Your task to perform on an android device: Is it going to rain today? Image 0: 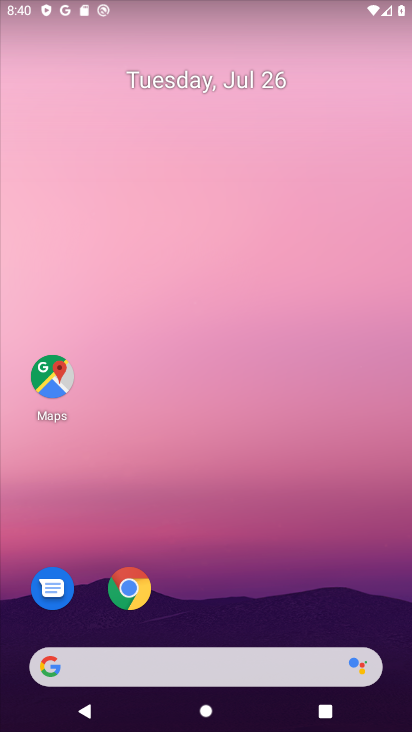
Step 0: press home button
Your task to perform on an android device: Is it going to rain today? Image 1: 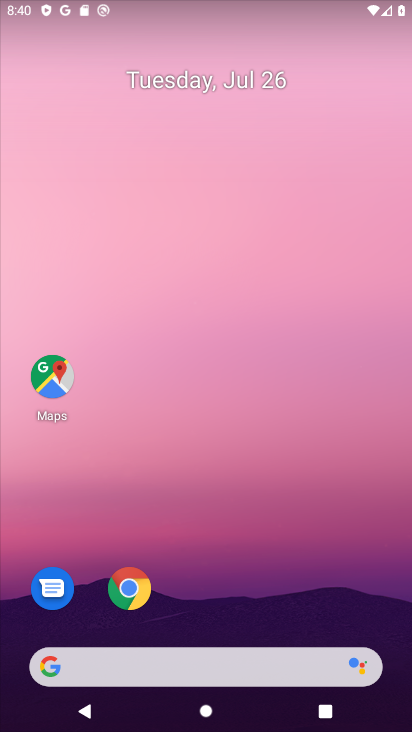
Step 1: drag from (14, 265) to (398, 258)
Your task to perform on an android device: Is it going to rain today? Image 2: 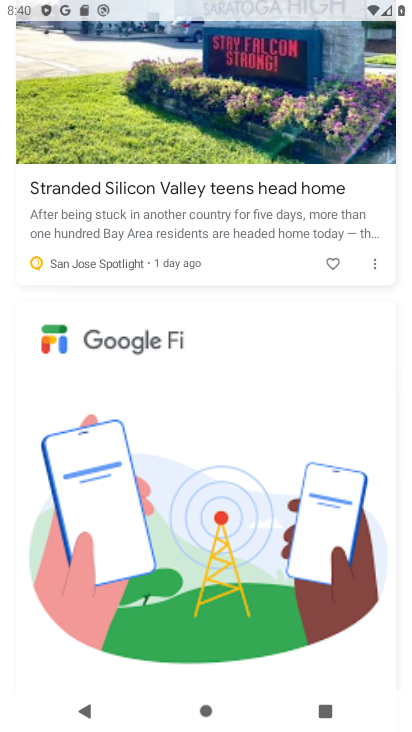
Step 2: drag from (226, 83) to (233, 698)
Your task to perform on an android device: Is it going to rain today? Image 3: 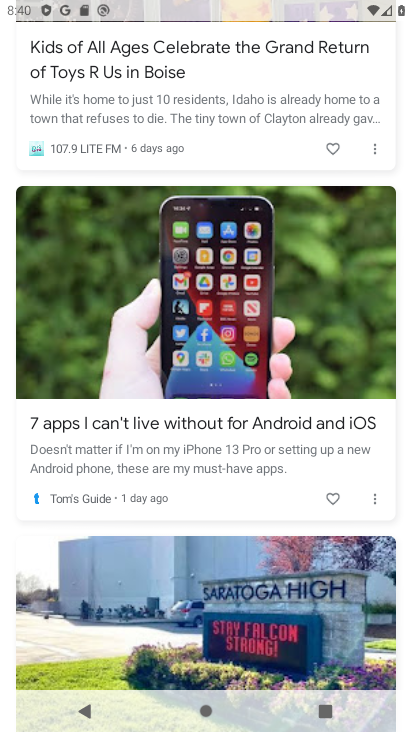
Step 3: drag from (231, 72) to (211, 686)
Your task to perform on an android device: Is it going to rain today? Image 4: 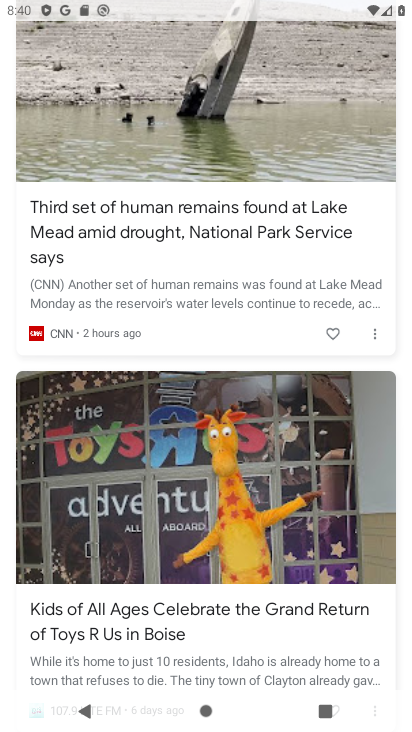
Step 4: drag from (205, 37) to (195, 720)
Your task to perform on an android device: Is it going to rain today? Image 5: 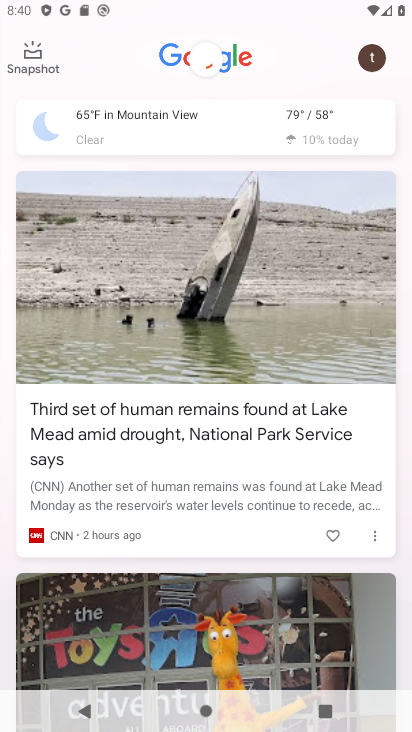
Step 5: click (309, 120)
Your task to perform on an android device: Is it going to rain today? Image 6: 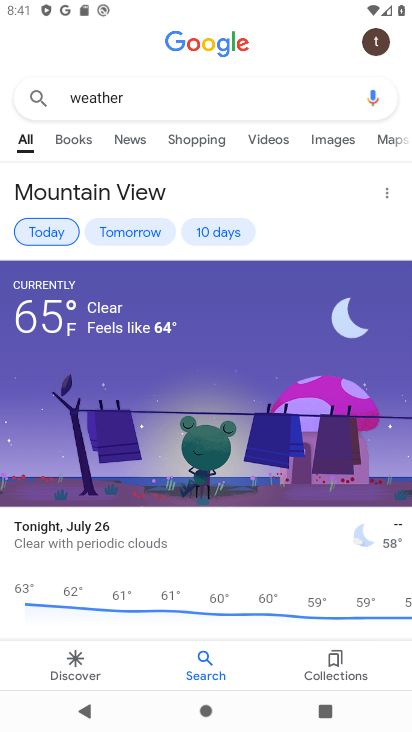
Step 6: task complete